Your task to perform on an android device: Find coffee shops on Maps Image 0: 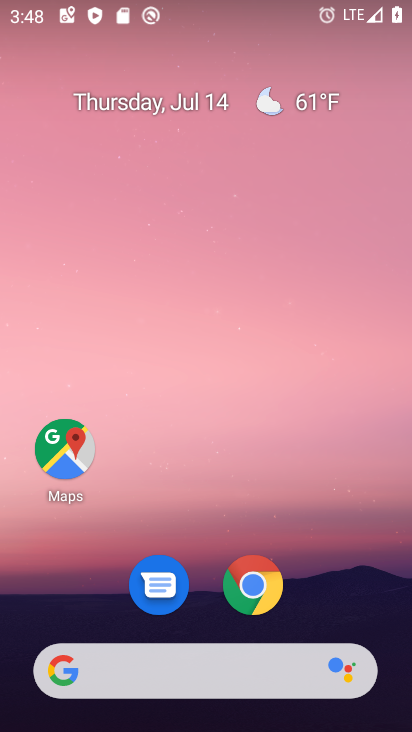
Step 0: click (62, 448)
Your task to perform on an android device: Find coffee shops on Maps Image 1: 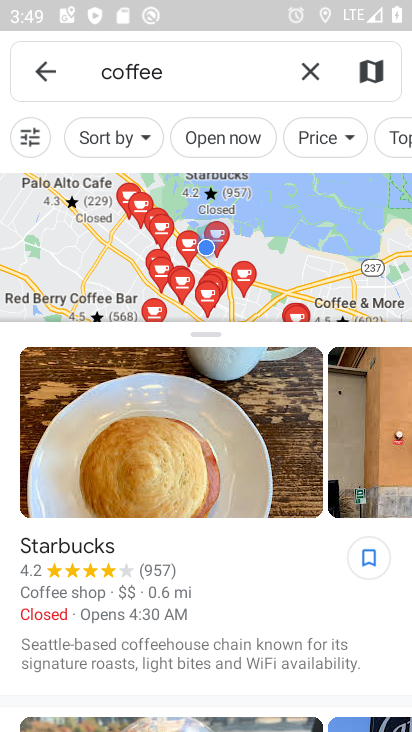
Step 1: task complete